Your task to perform on an android device: Go to Yahoo.com Image 0: 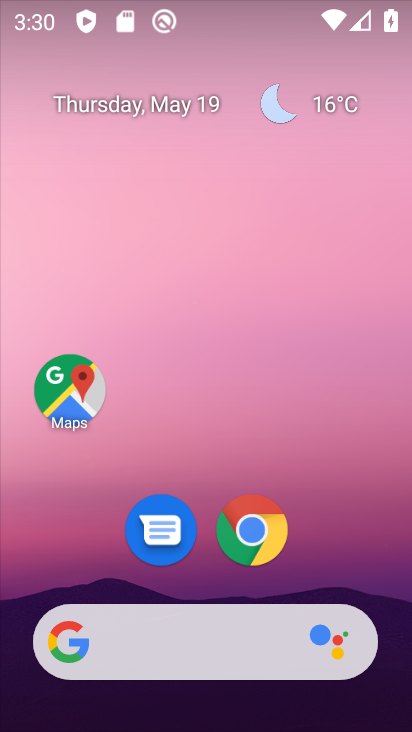
Step 0: drag from (322, 560) to (337, 172)
Your task to perform on an android device: Go to Yahoo.com Image 1: 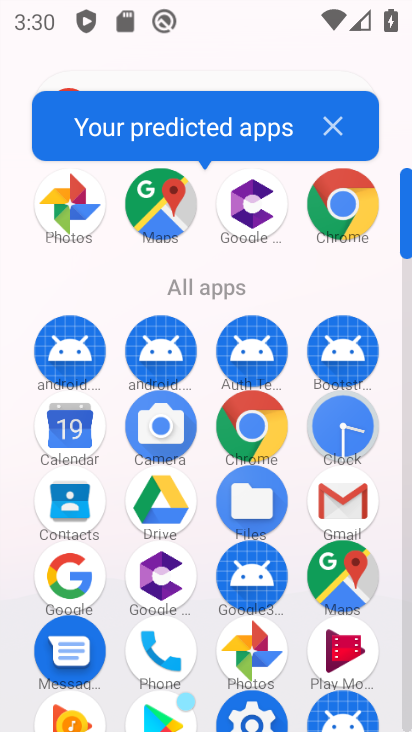
Step 1: click (64, 584)
Your task to perform on an android device: Go to Yahoo.com Image 2: 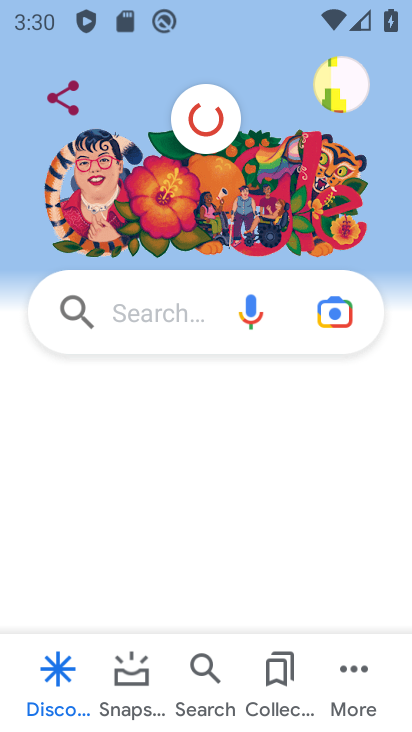
Step 2: click (140, 316)
Your task to perform on an android device: Go to Yahoo.com Image 3: 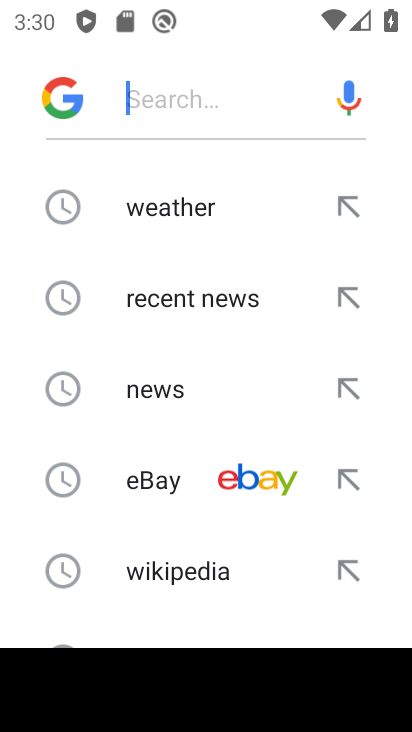
Step 3: drag from (208, 562) to (227, 195)
Your task to perform on an android device: Go to Yahoo.com Image 4: 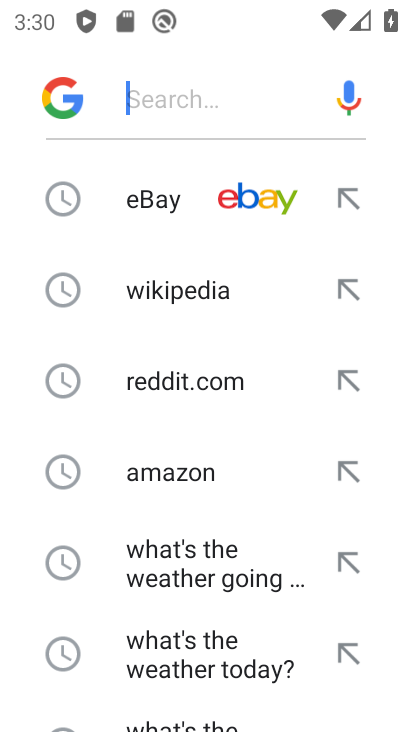
Step 4: drag from (209, 631) to (295, 303)
Your task to perform on an android device: Go to Yahoo.com Image 5: 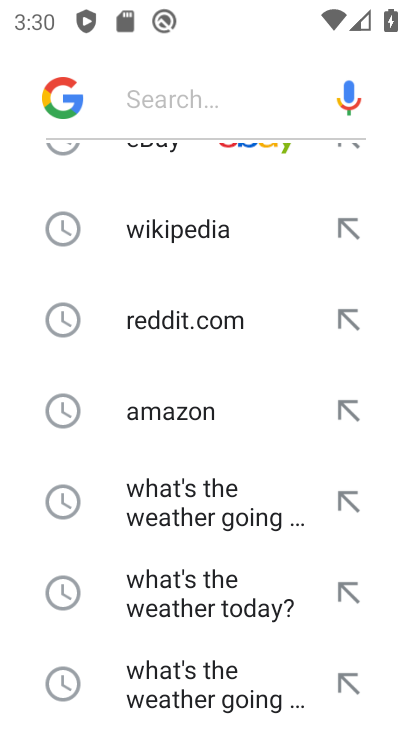
Step 5: drag from (255, 634) to (259, 322)
Your task to perform on an android device: Go to Yahoo.com Image 6: 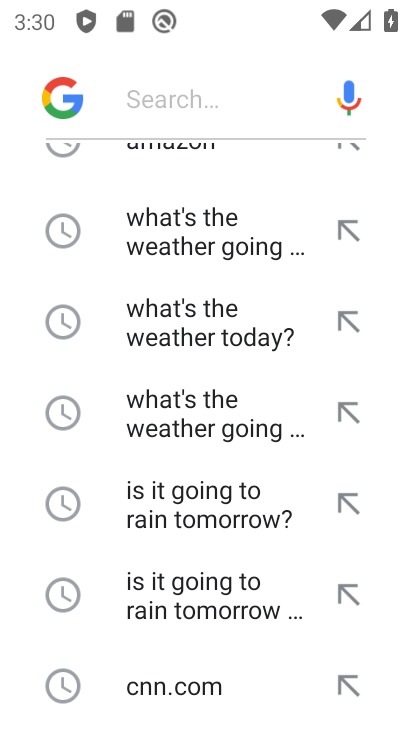
Step 6: drag from (211, 647) to (221, 208)
Your task to perform on an android device: Go to Yahoo.com Image 7: 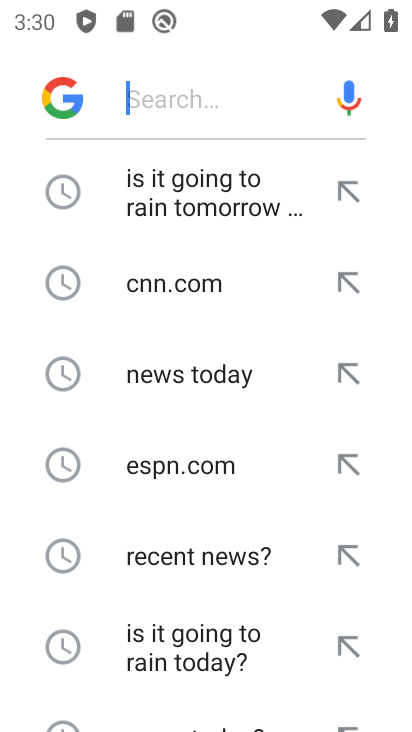
Step 7: drag from (261, 626) to (311, 305)
Your task to perform on an android device: Go to Yahoo.com Image 8: 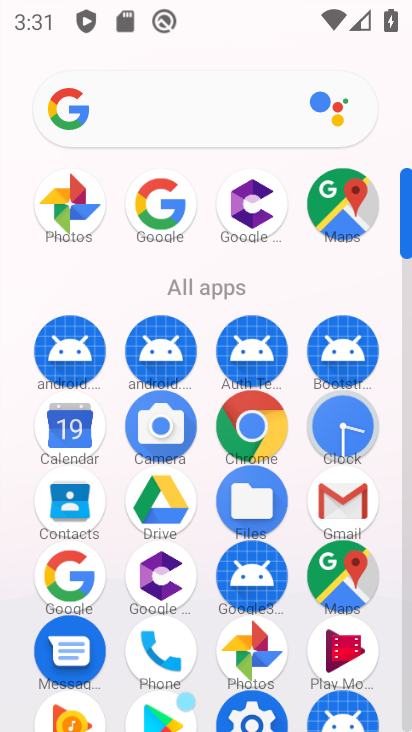
Step 8: click (161, 212)
Your task to perform on an android device: Go to Yahoo.com Image 9: 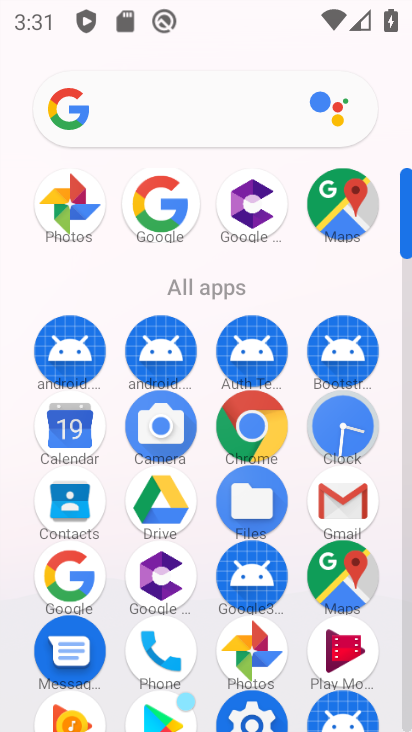
Step 9: click (165, 210)
Your task to perform on an android device: Go to Yahoo.com Image 10: 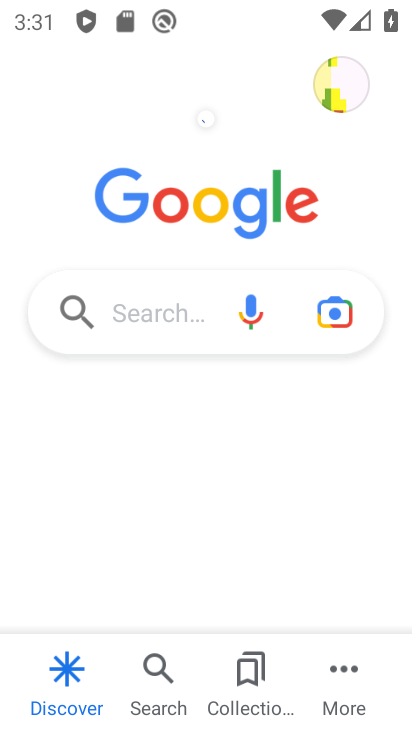
Step 10: click (150, 315)
Your task to perform on an android device: Go to Yahoo.com Image 11: 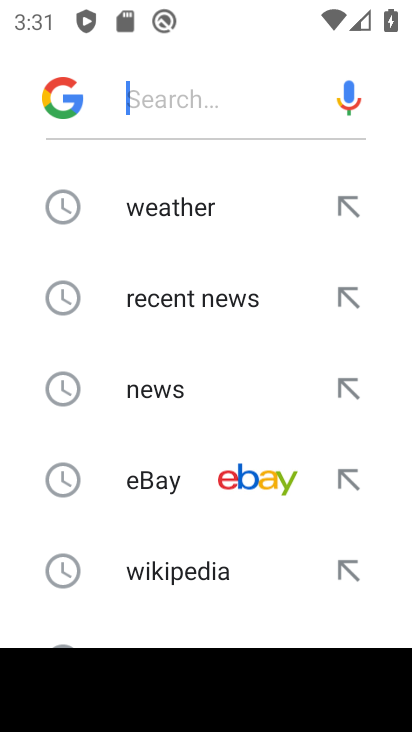
Step 11: type "yahoo.com"
Your task to perform on an android device: Go to Yahoo.com Image 12: 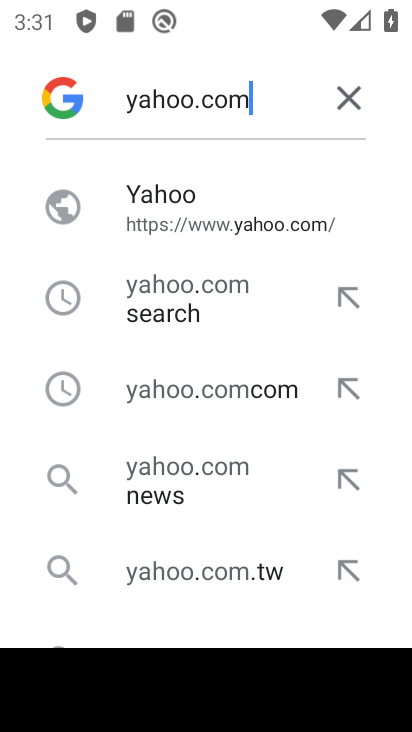
Step 12: click (202, 305)
Your task to perform on an android device: Go to Yahoo.com Image 13: 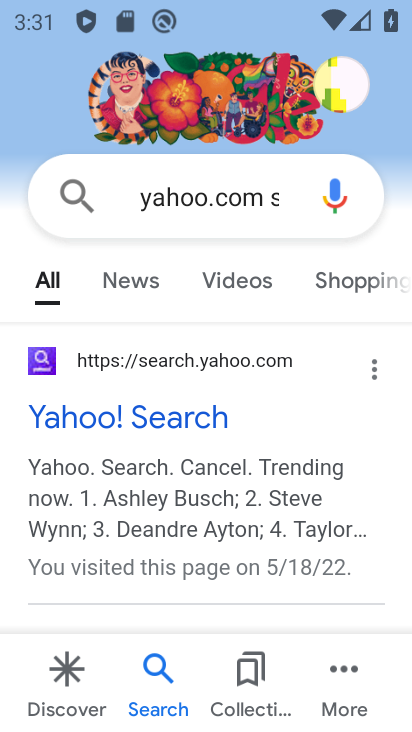
Step 13: task complete